Your task to perform on an android device: change notification settings in the gmail app Image 0: 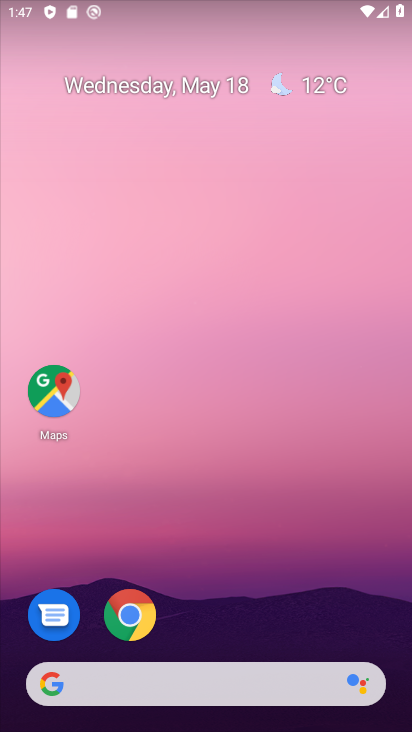
Step 0: drag from (343, 631) to (264, 82)
Your task to perform on an android device: change notification settings in the gmail app Image 1: 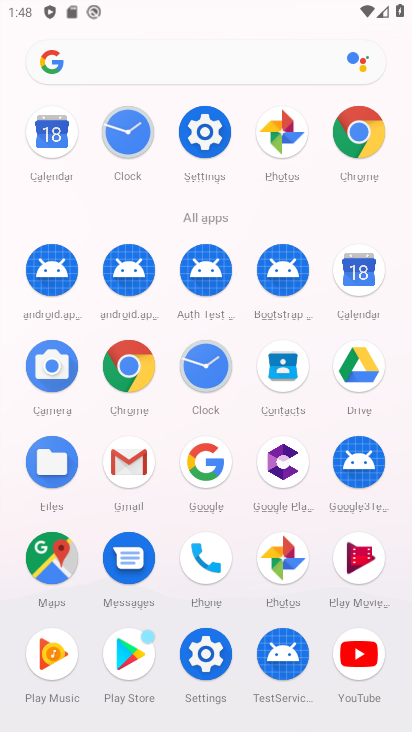
Step 1: click (137, 474)
Your task to perform on an android device: change notification settings in the gmail app Image 2: 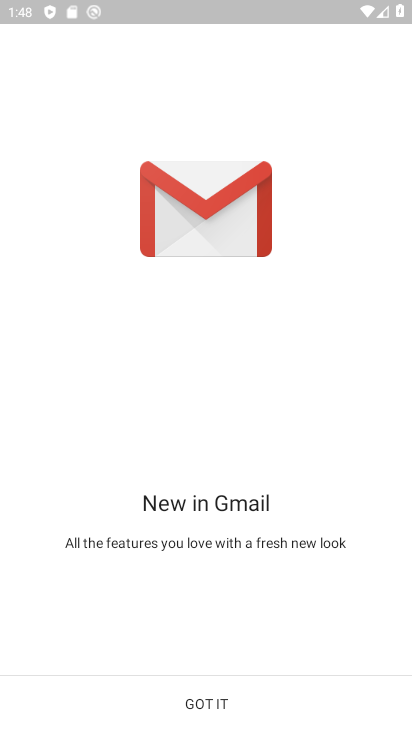
Step 2: click (195, 691)
Your task to perform on an android device: change notification settings in the gmail app Image 3: 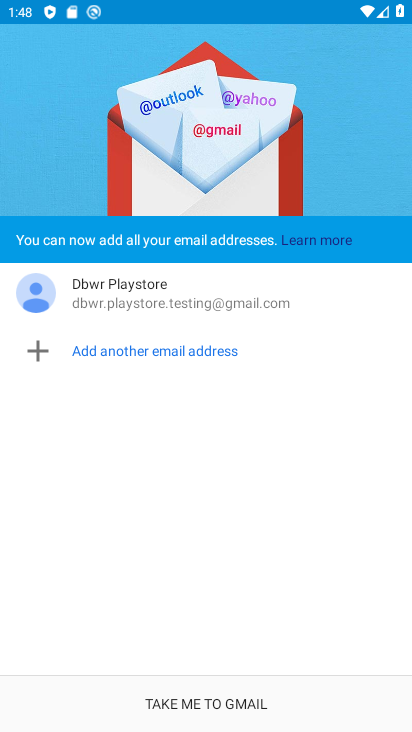
Step 3: click (195, 691)
Your task to perform on an android device: change notification settings in the gmail app Image 4: 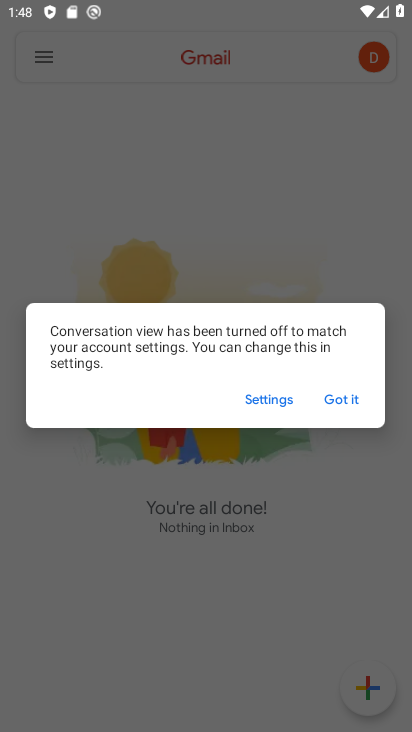
Step 4: click (349, 401)
Your task to perform on an android device: change notification settings in the gmail app Image 5: 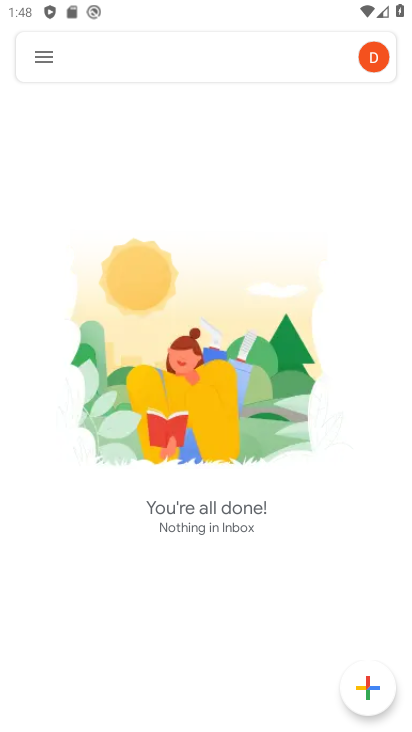
Step 5: click (43, 42)
Your task to perform on an android device: change notification settings in the gmail app Image 6: 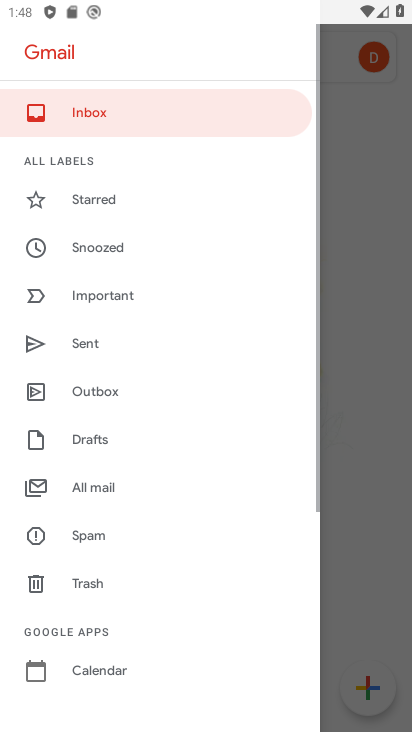
Step 6: drag from (126, 679) to (151, 119)
Your task to perform on an android device: change notification settings in the gmail app Image 7: 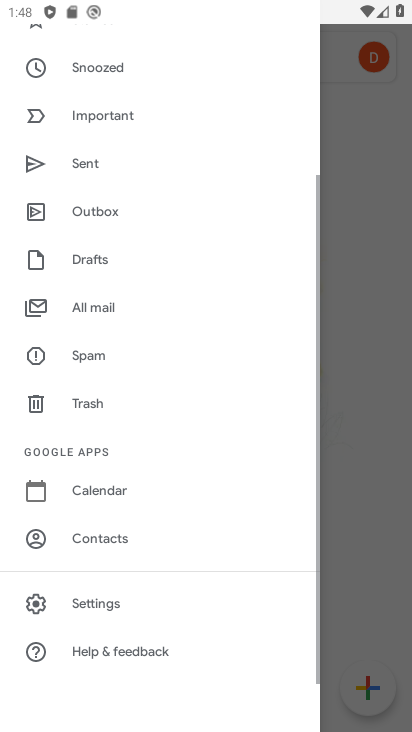
Step 7: click (144, 614)
Your task to perform on an android device: change notification settings in the gmail app Image 8: 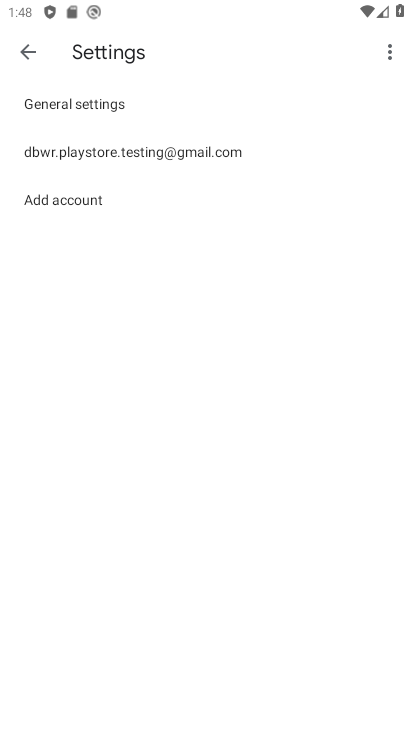
Step 8: click (129, 141)
Your task to perform on an android device: change notification settings in the gmail app Image 9: 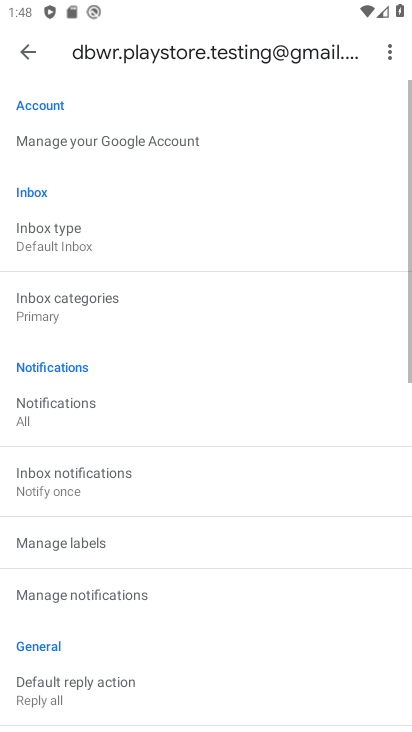
Step 9: click (69, 423)
Your task to perform on an android device: change notification settings in the gmail app Image 10: 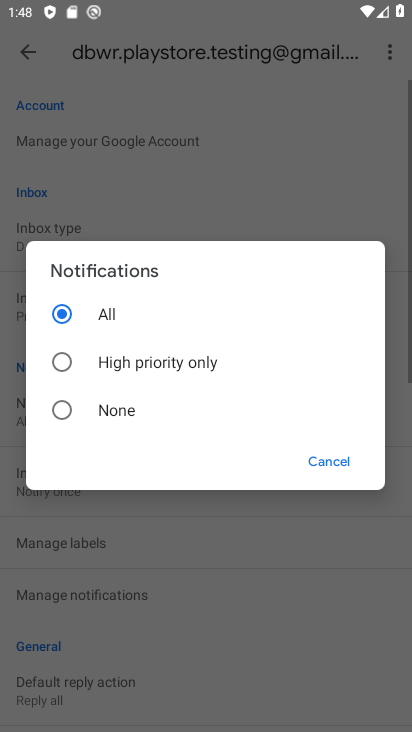
Step 10: click (114, 427)
Your task to perform on an android device: change notification settings in the gmail app Image 11: 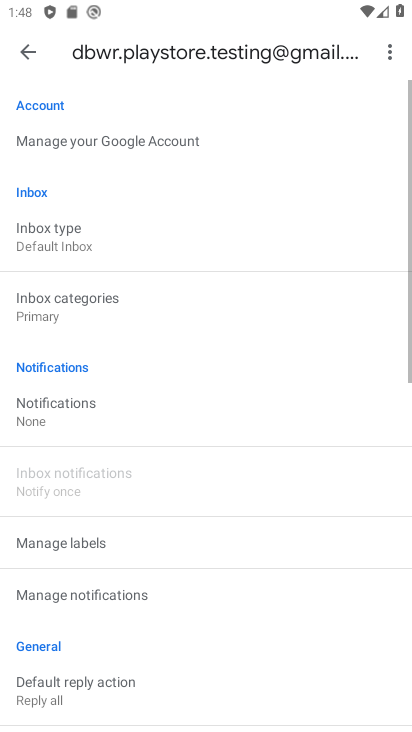
Step 11: task complete